Your task to perform on an android device: stop showing notifications on the lock screen Image 0: 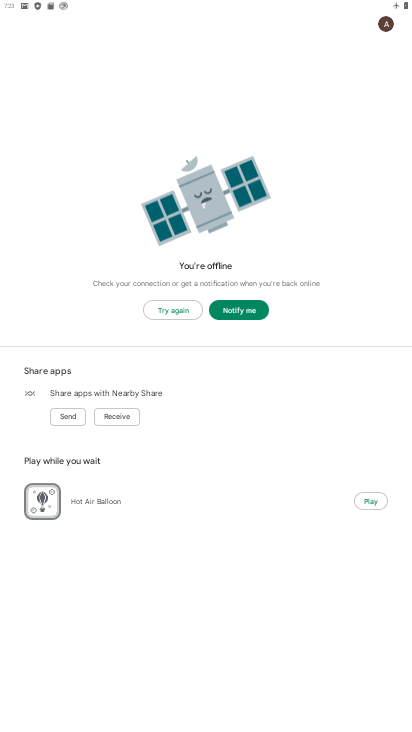
Step 0: press home button
Your task to perform on an android device: stop showing notifications on the lock screen Image 1: 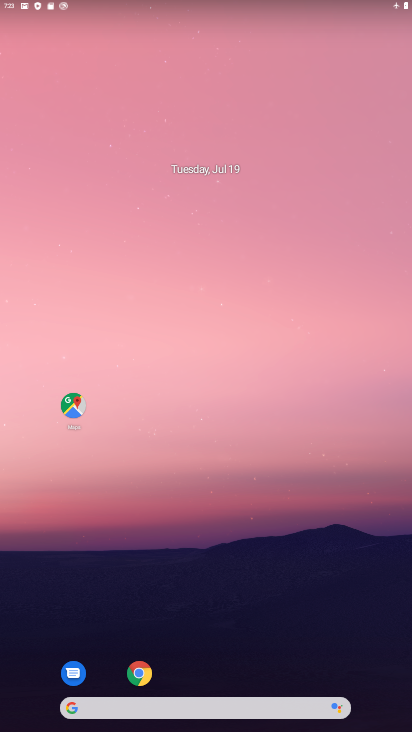
Step 1: drag from (276, 599) to (158, 108)
Your task to perform on an android device: stop showing notifications on the lock screen Image 2: 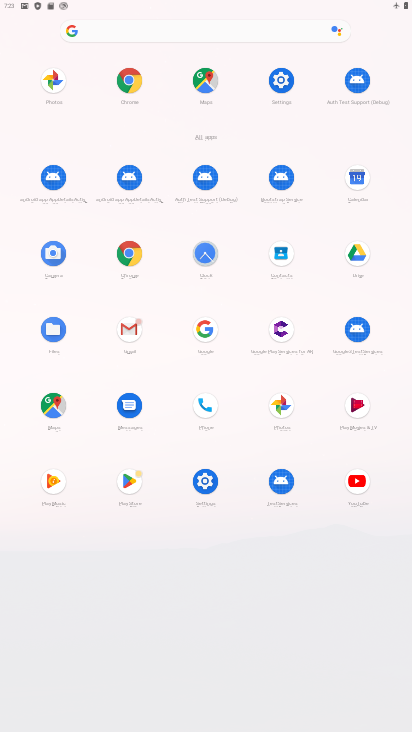
Step 2: click (289, 86)
Your task to perform on an android device: stop showing notifications on the lock screen Image 3: 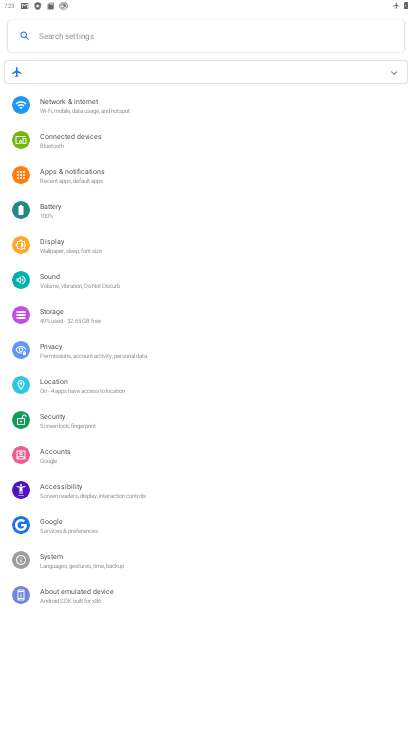
Step 3: click (87, 179)
Your task to perform on an android device: stop showing notifications on the lock screen Image 4: 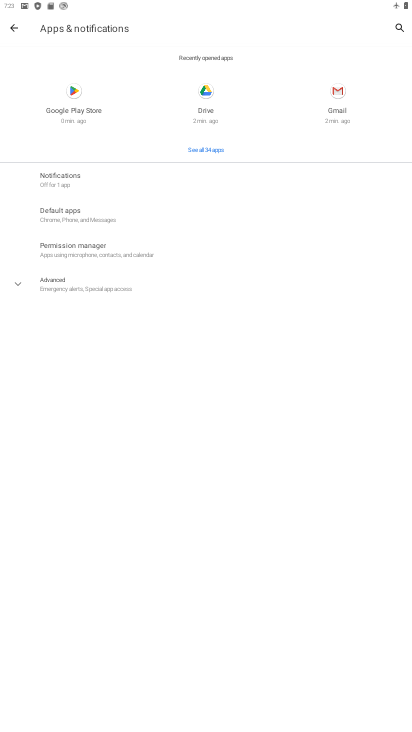
Step 4: click (43, 289)
Your task to perform on an android device: stop showing notifications on the lock screen Image 5: 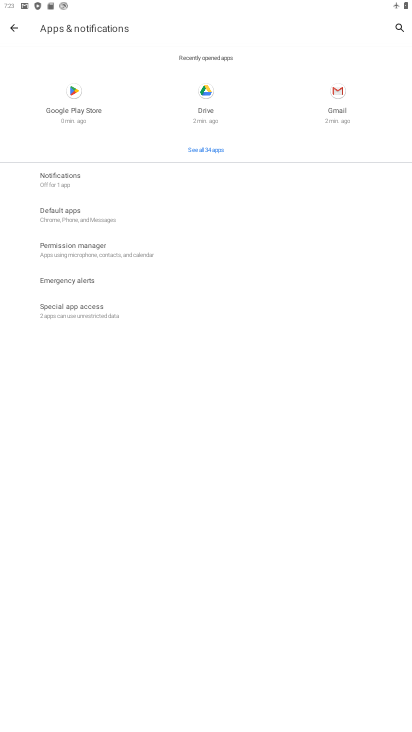
Step 5: click (54, 185)
Your task to perform on an android device: stop showing notifications on the lock screen Image 6: 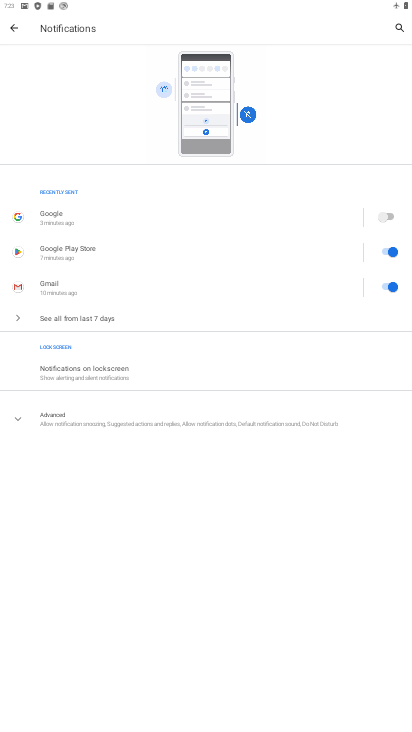
Step 6: click (128, 372)
Your task to perform on an android device: stop showing notifications on the lock screen Image 7: 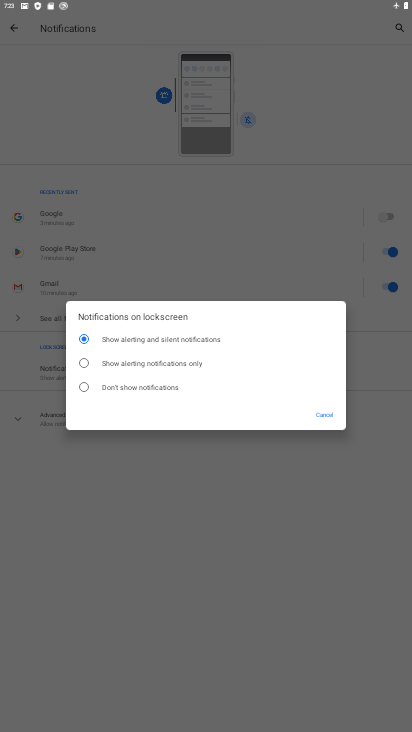
Step 7: click (132, 385)
Your task to perform on an android device: stop showing notifications on the lock screen Image 8: 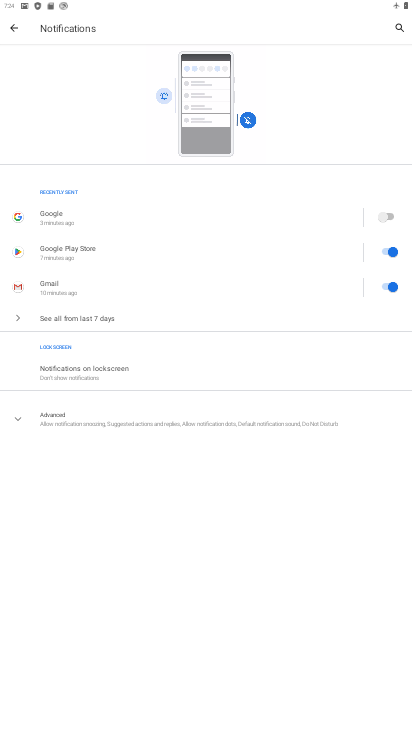
Step 8: task complete